Your task to perform on an android device: check out phone information Image 0: 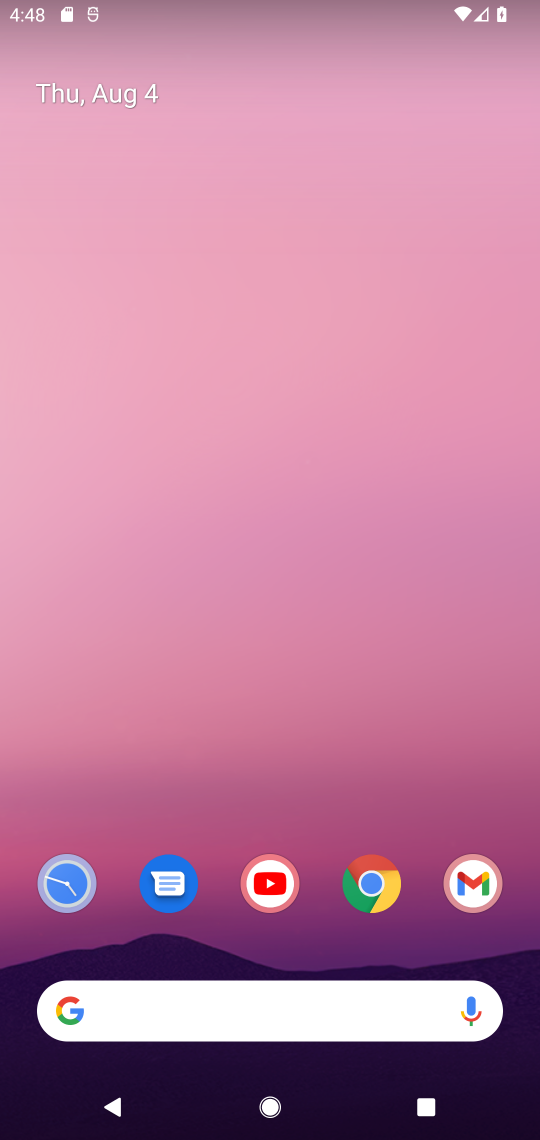
Step 0: press home button
Your task to perform on an android device: check out phone information Image 1: 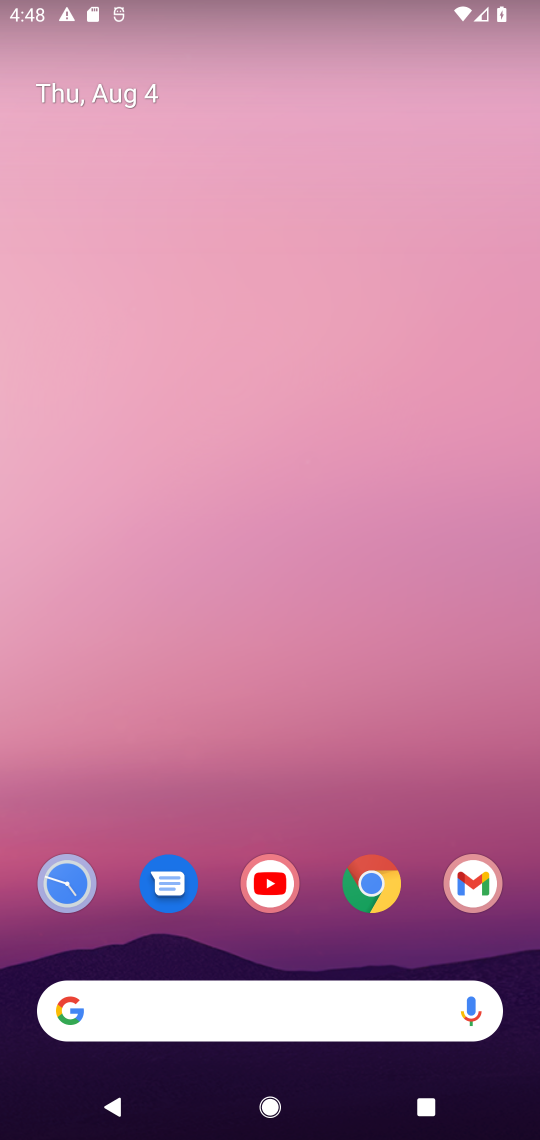
Step 1: drag from (211, 853) to (337, 19)
Your task to perform on an android device: check out phone information Image 2: 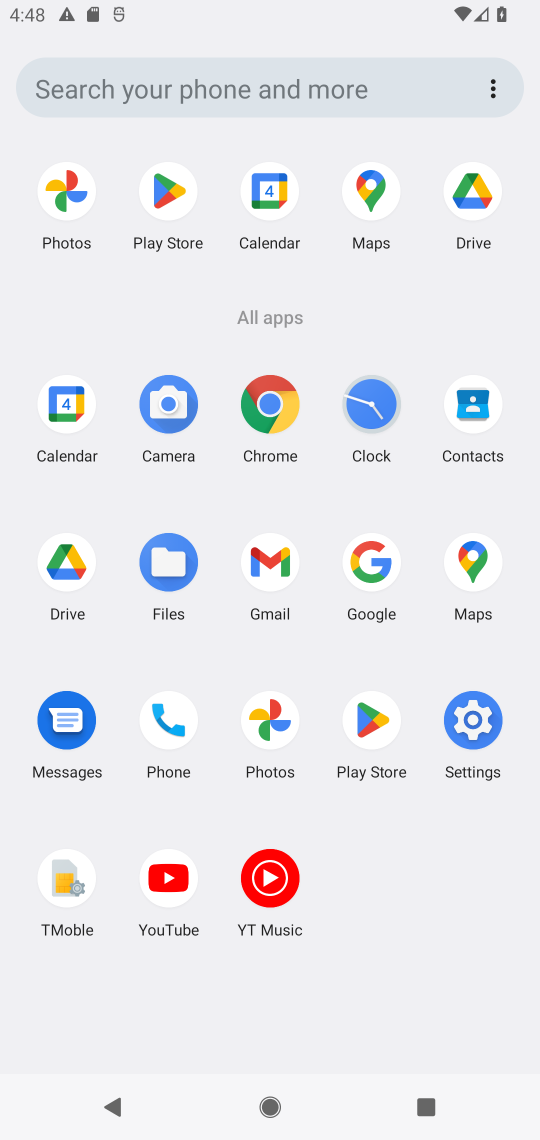
Step 2: click (467, 712)
Your task to perform on an android device: check out phone information Image 3: 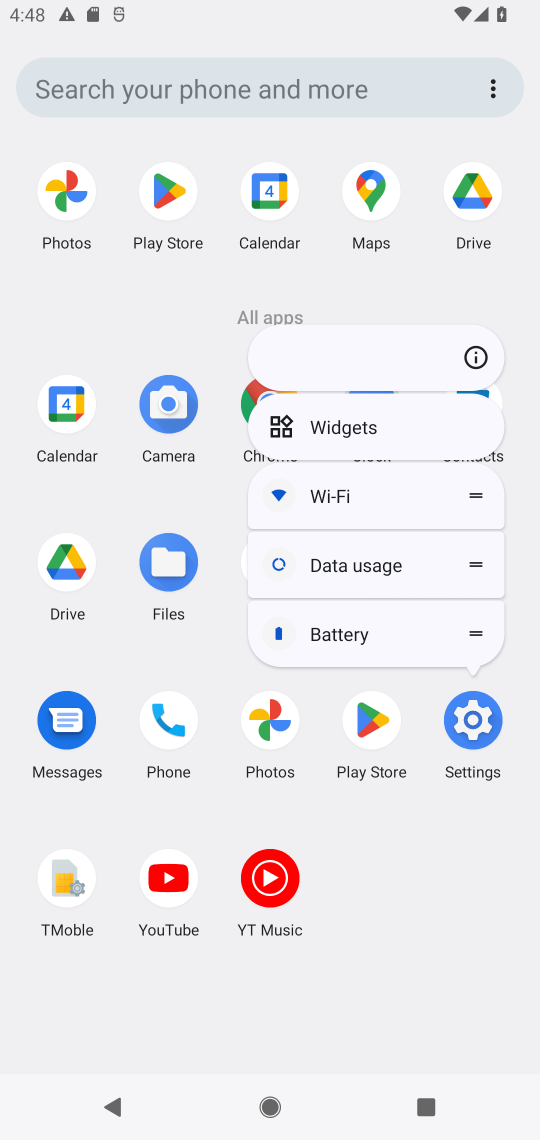
Step 3: click (466, 726)
Your task to perform on an android device: check out phone information Image 4: 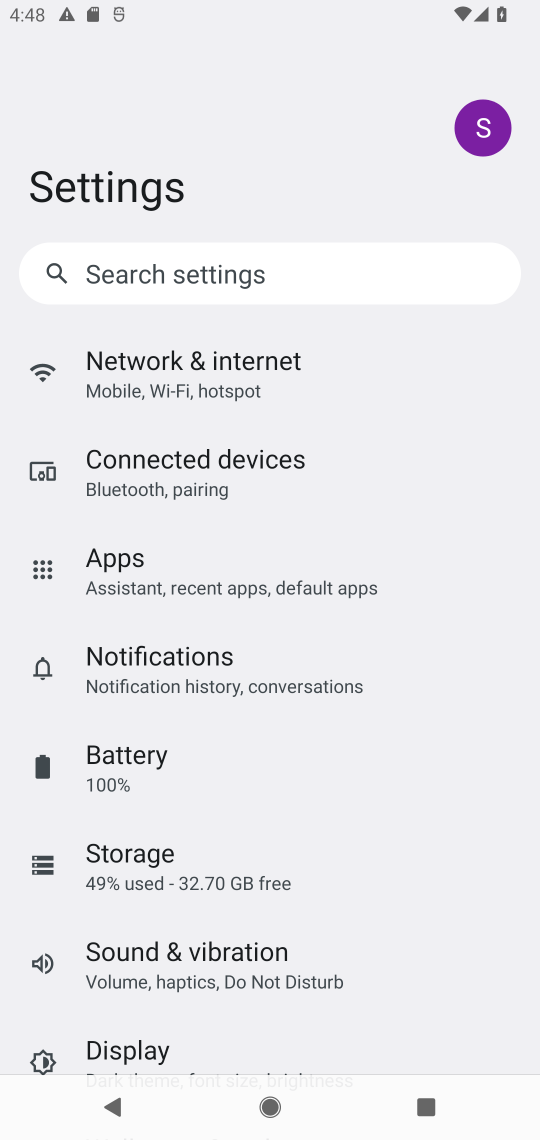
Step 4: drag from (318, 412) to (519, 846)
Your task to perform on an android device: check out phone information Image 5: 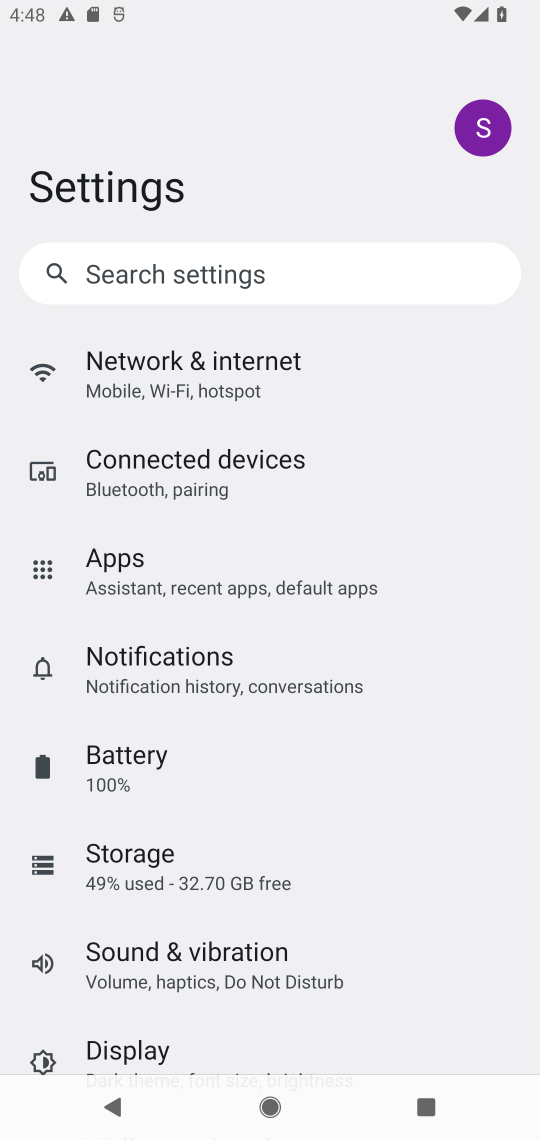
Step 5: drag from (348, 1007) to (534, 846)
Your task to perform on an android device: check out phone information Image 6: 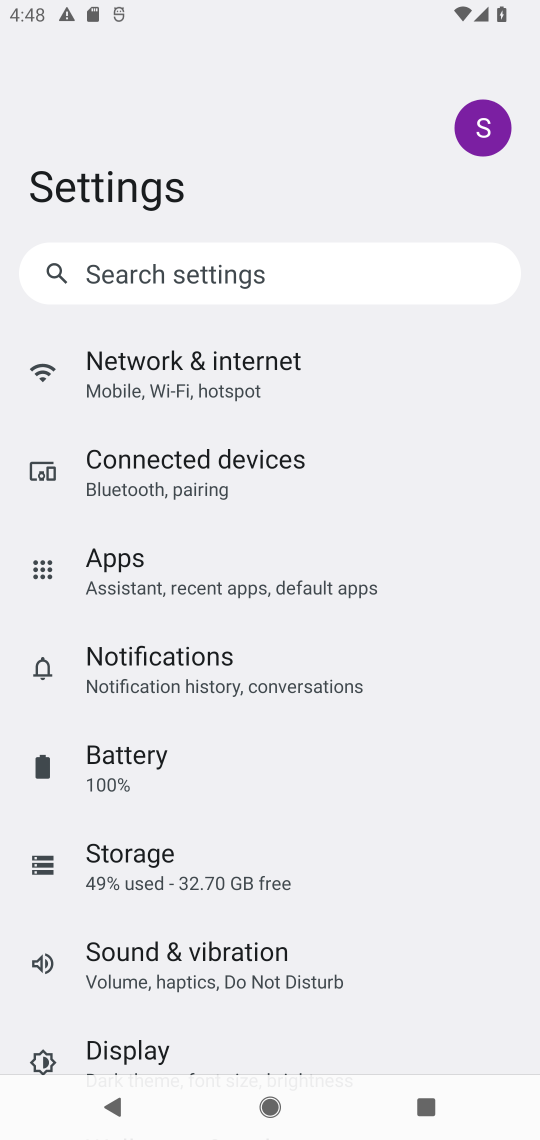
Step 6: drag from (226, 873) to (532, 713)
Your task to perform on an android device: check out phone information Image 7: 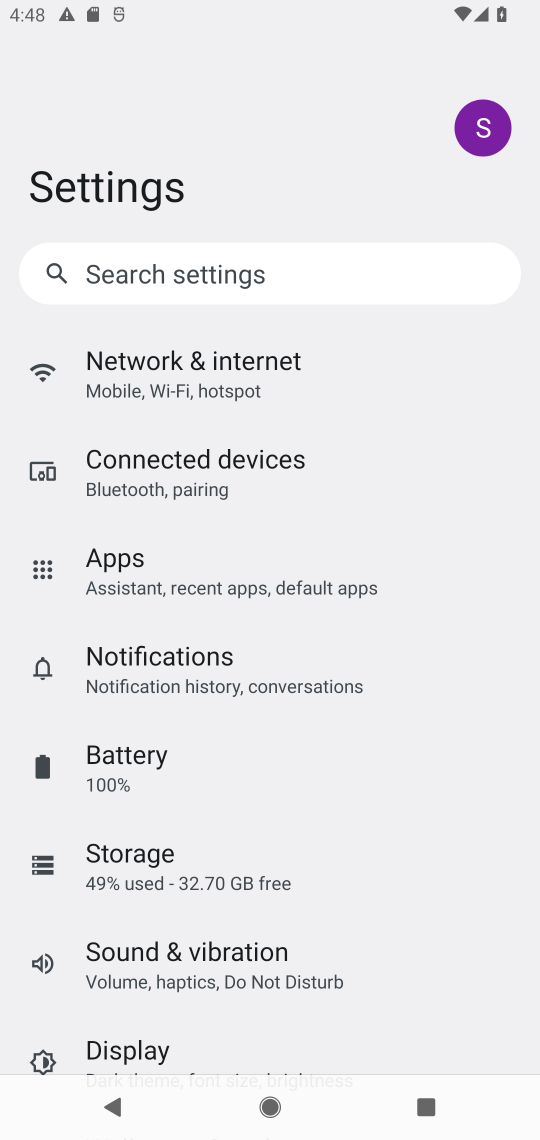
Step 7: drag from (428, 1017) to (449, 54)
Your task to perform on an android device: check out phone information Image 8: 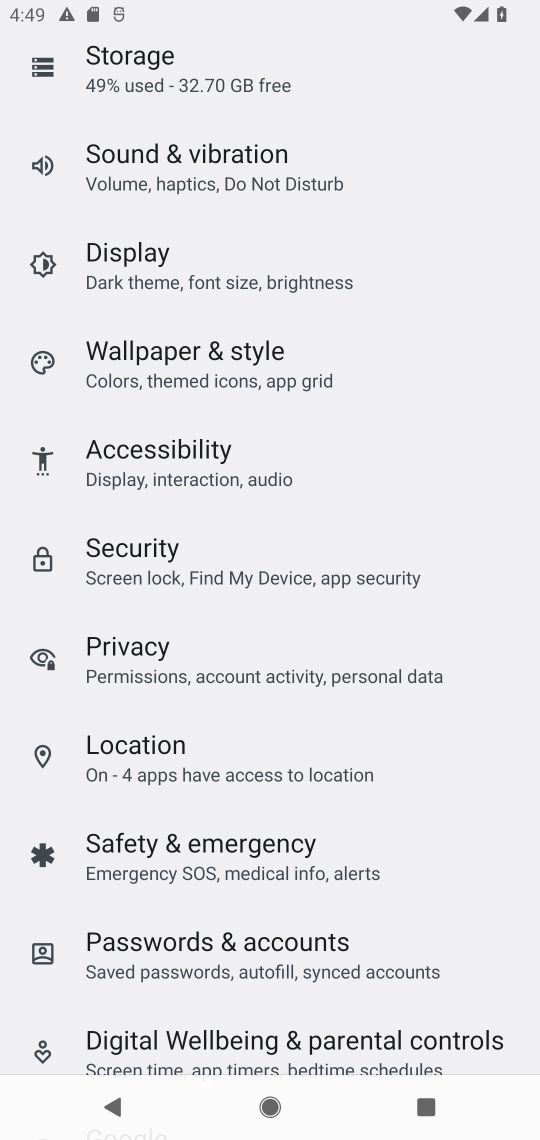
Step 8: drag from (434, 1011) to (519, 63)
Your task to perform on an android device: check out phone information Image 9: 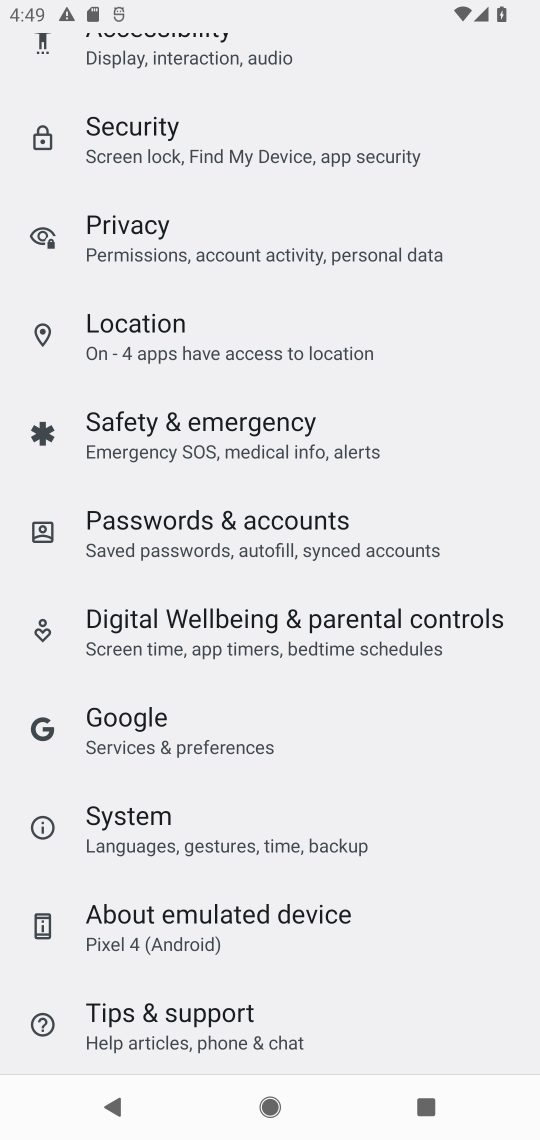
Step 9: drag from (392, 920) to (508, 1002)
Your task to perform on an android device: check out phone information Image 10: 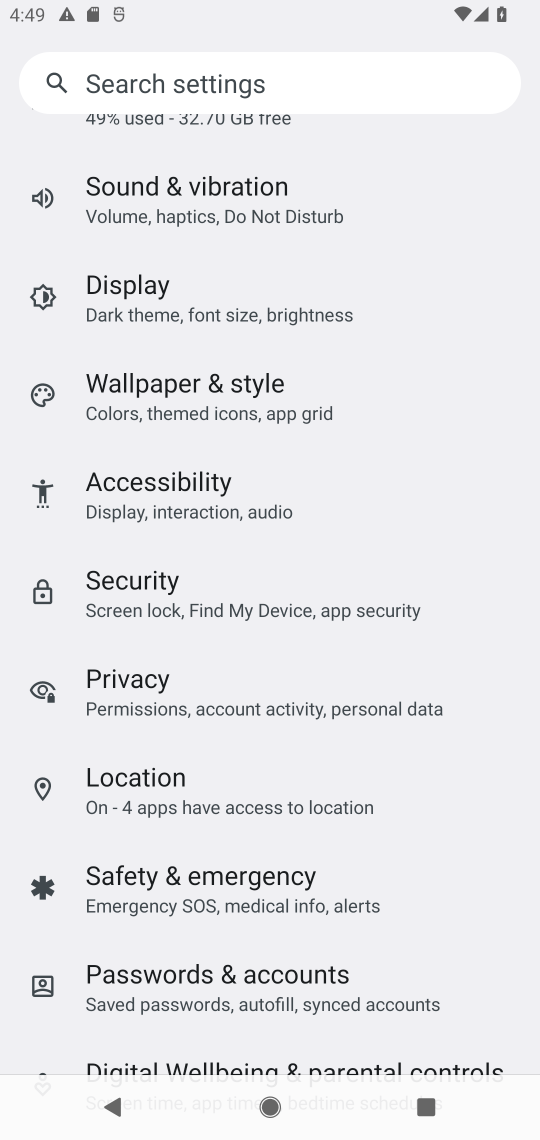
Step 10: drag from (396, 1030) to (528, 742)
Your task to perform on an android device: check out phone information Image 11: 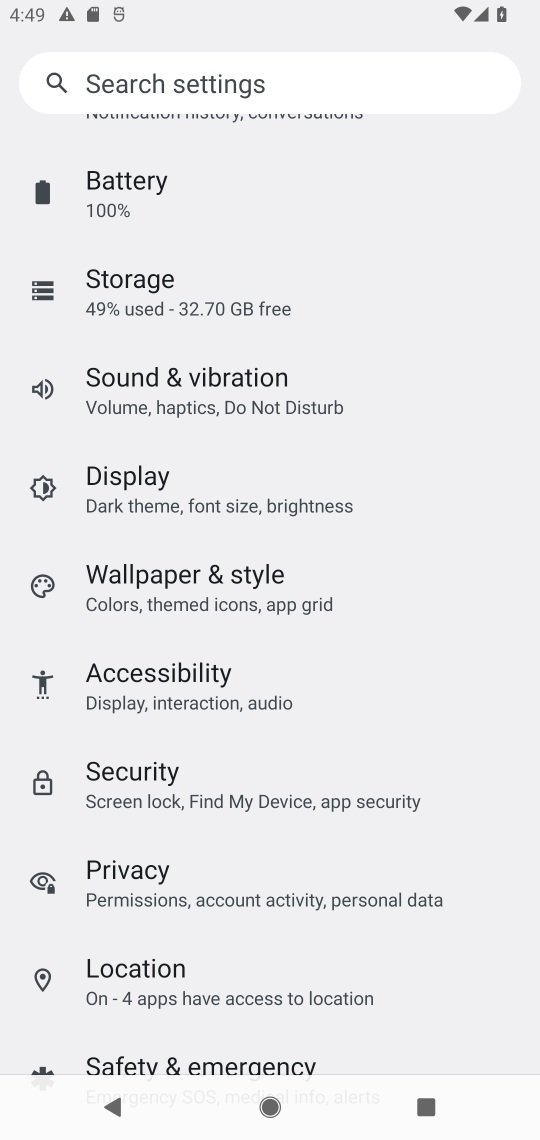
Step 11: drag from (293, 969) to (536, 927)
Your task to perform on an android device: check out phone information Image 12: 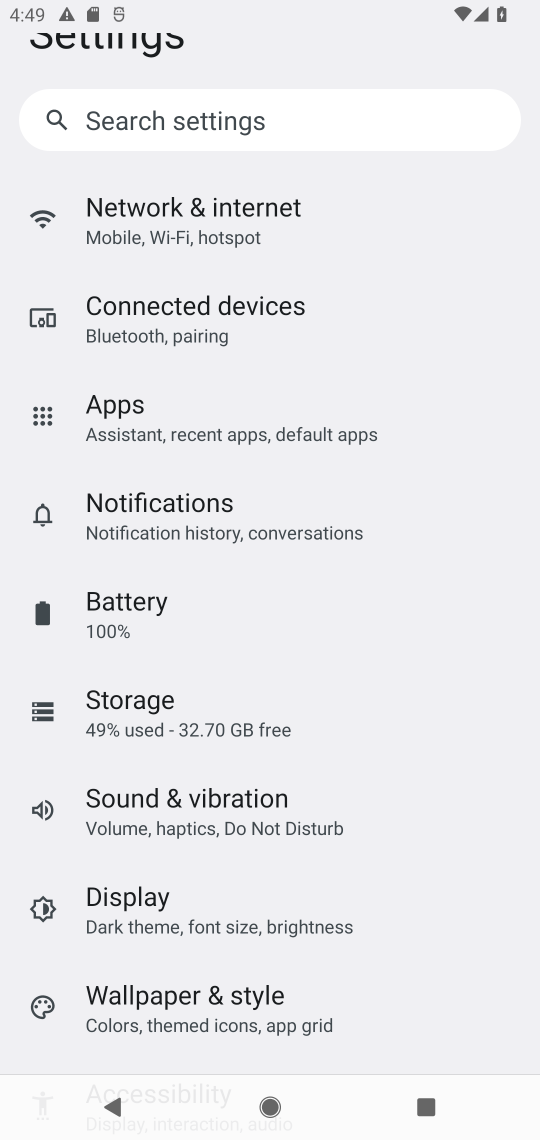
Step 12: drag from (390, 1000) to (349, 44)
Your task to perform on an android device: check out phone information Image 13: 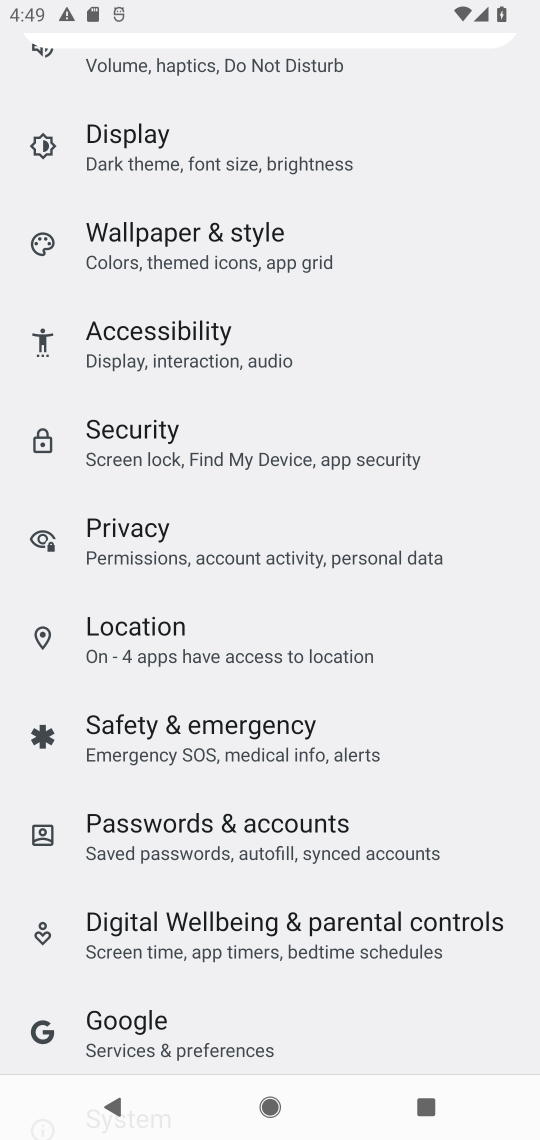
Step 13: drag from (278, 988) to (535, 762)
Your task to perform on an android device: check out phone information Image 14: 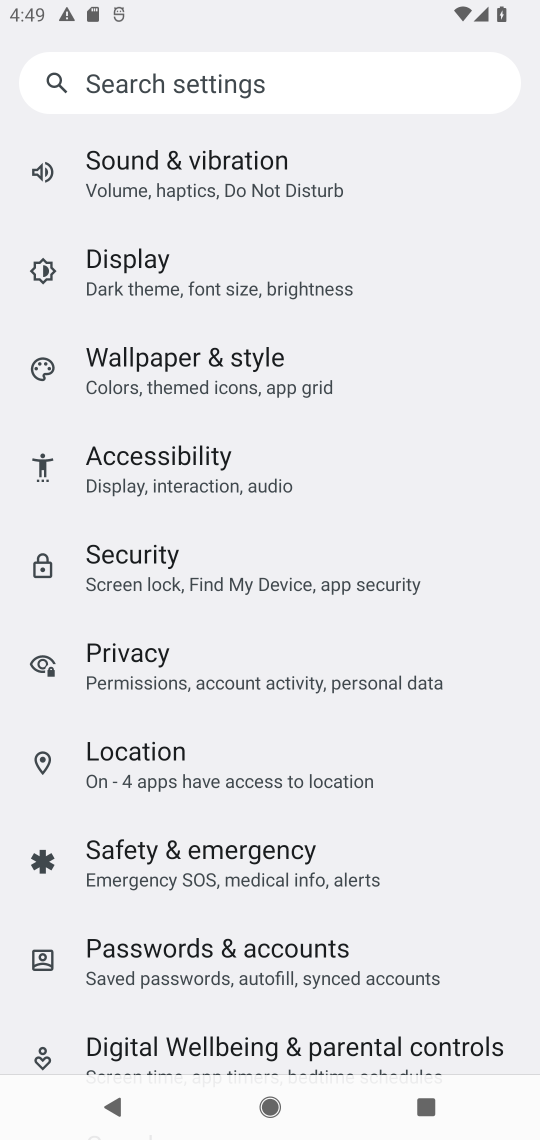
Step 14: drag from (363, 889) to (533, 950)
Your task to perform on an android device: check out phone information Image 15: 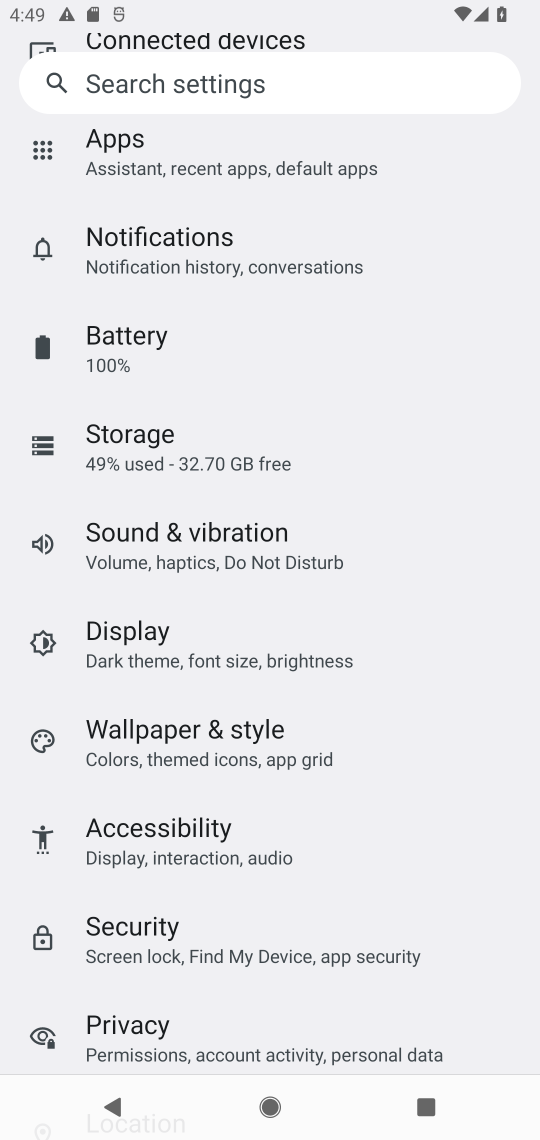
Step 15: drag from (387, 937) to (532, 189)
Your task to perform on an android device: check out phone information Image 16: 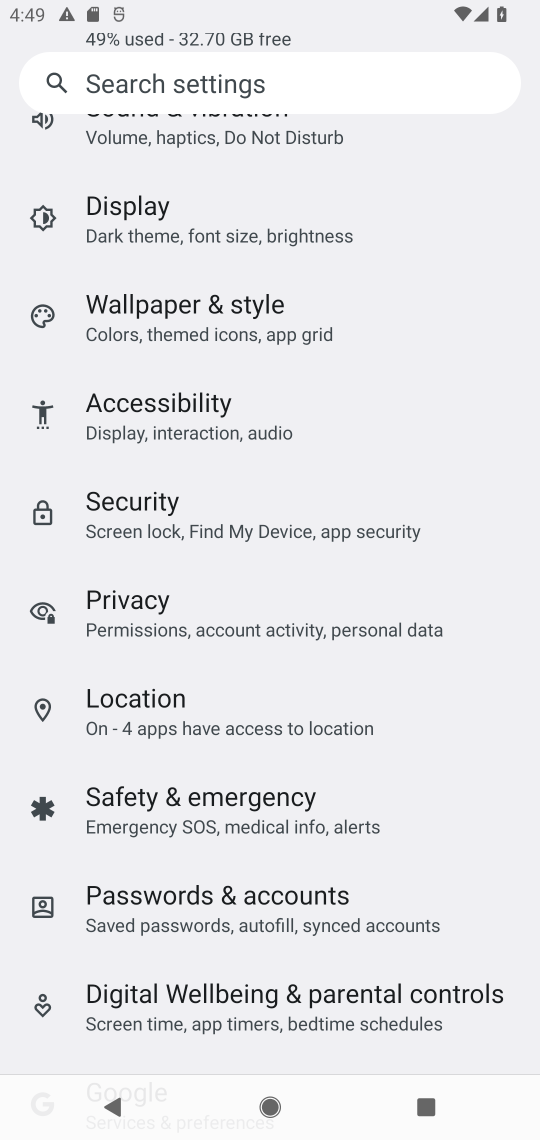
Step 16: drag from (403, 887) to (397, 33)
Your task to perform on an android device: check out phone information Image 17: 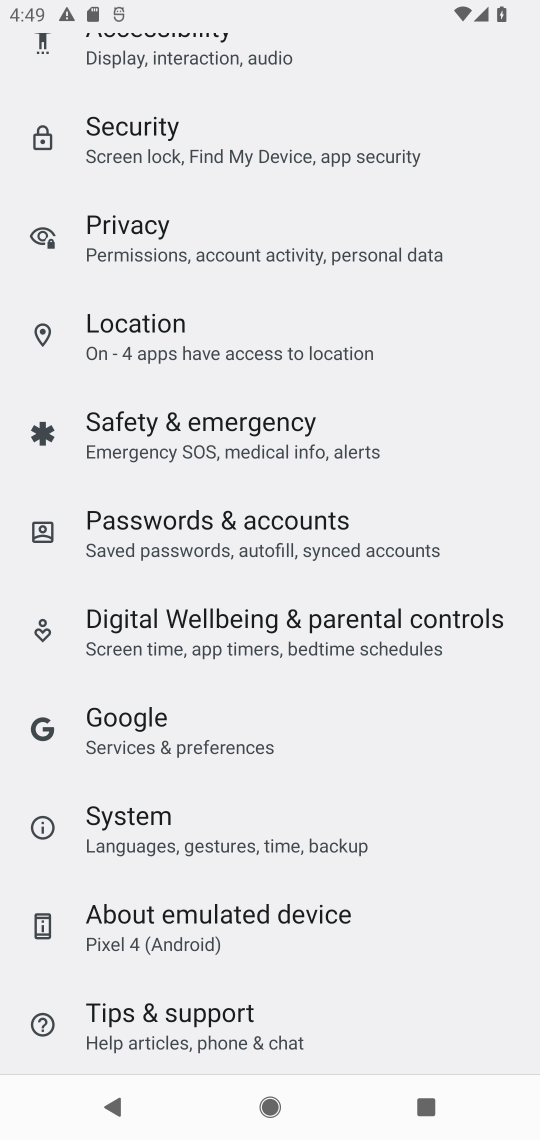
Step 17: drag from (331, 929) to (453, 92)
Your task to perform on an android device: check out phone information Image 18: 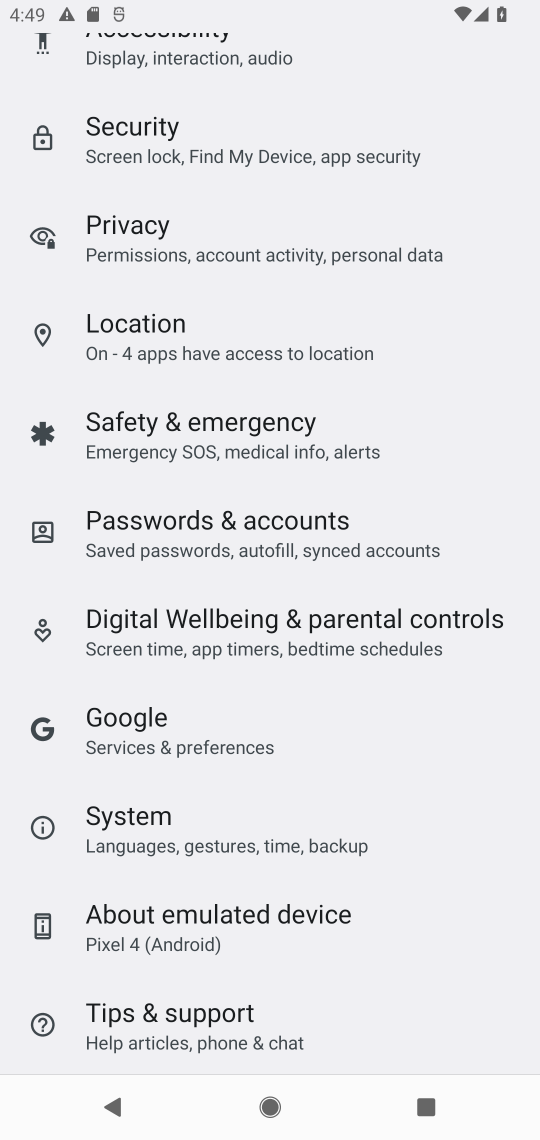
Step 18: click (237, 925)
Your task to perform on an android device: check out phone information Image 19: 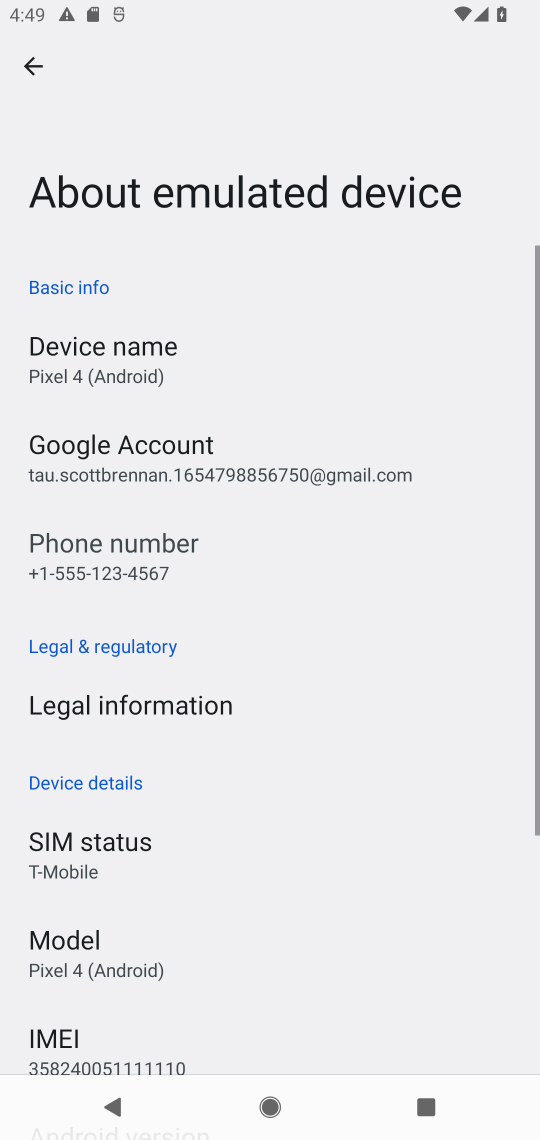
Step 19: task complete